Your task to perform on an android device: open chrome and create a bookmark for the current page Image 0: 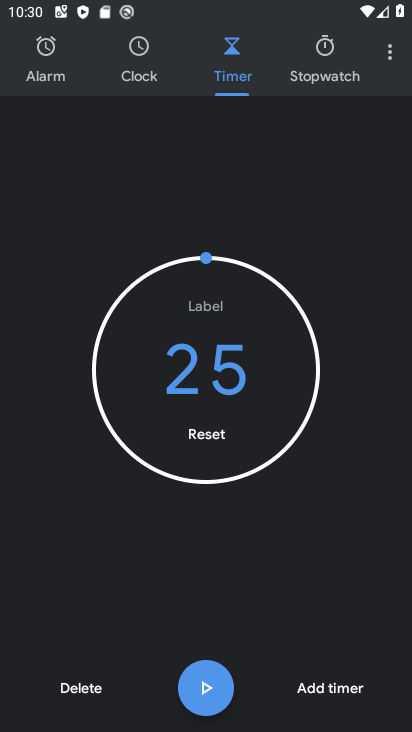
Step 0: press home button
Your task to perform on an android device: open chrome and create a bookmark for the current page Image 1: 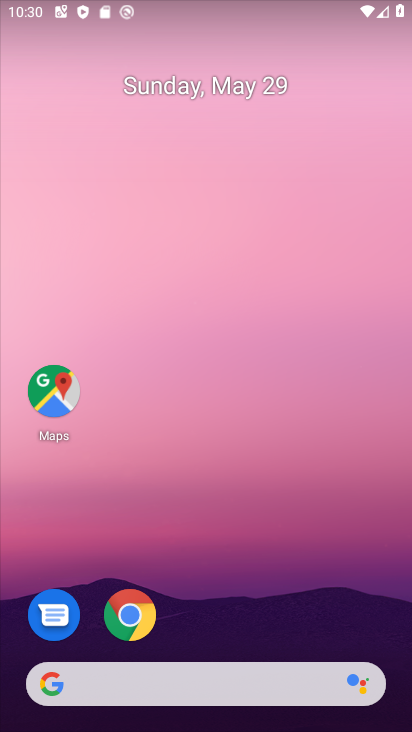
Step 1: drag from (187, 657) to (105, 80)
Your task to perform on an android device: open chrome and create a bookmark for the current page Image 2: 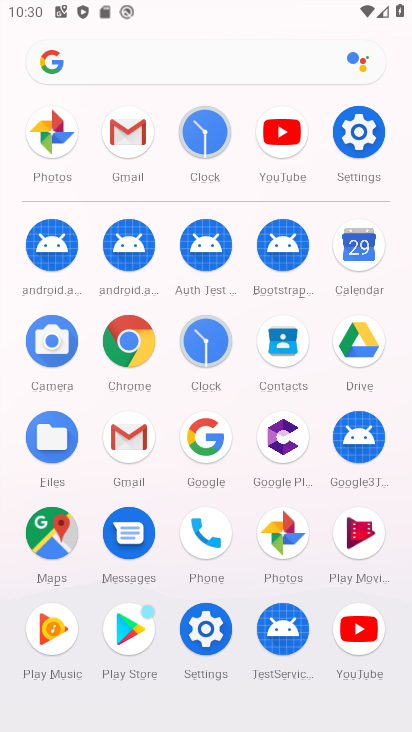
Step 2: click (136, 341)
Your task to perform on an android device: open chrome and create a bookmark for the current page Image 3: 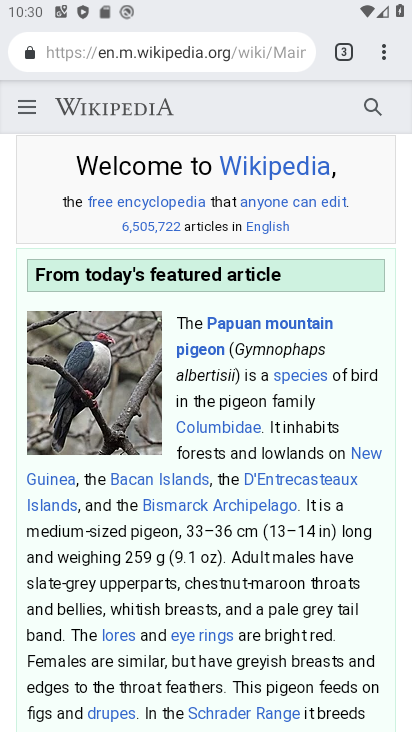
Step 3: task complete